Your task to perform on an android device: When is my next meeting? Image 0: 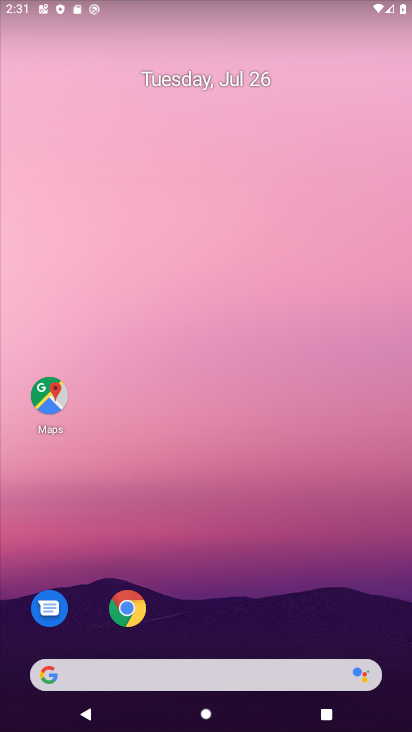
Step 0: drag from (262, 647) to (236, 182)
Your task to perform on an android device: When is my next meeting? Image 1: 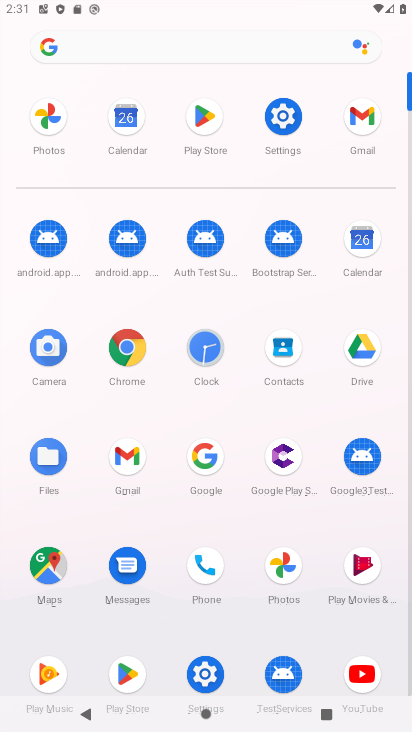
Step 1: click (280, 122)
Your task to perform on an android device: When is my next meeting? Image 2: 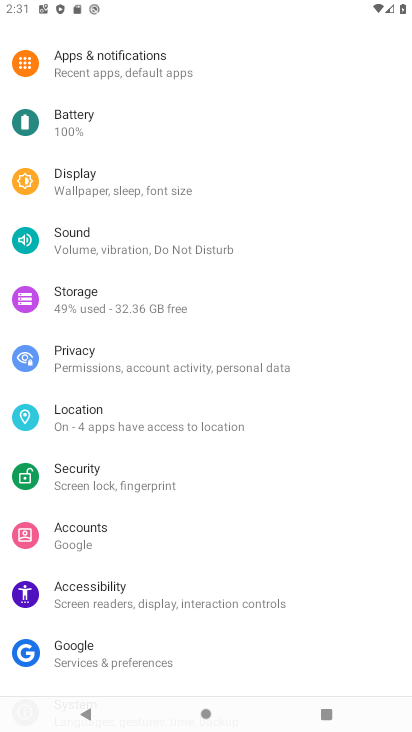
Step 2: press home button
Your task to perform on an android device: When is my next meeting? Image 3: 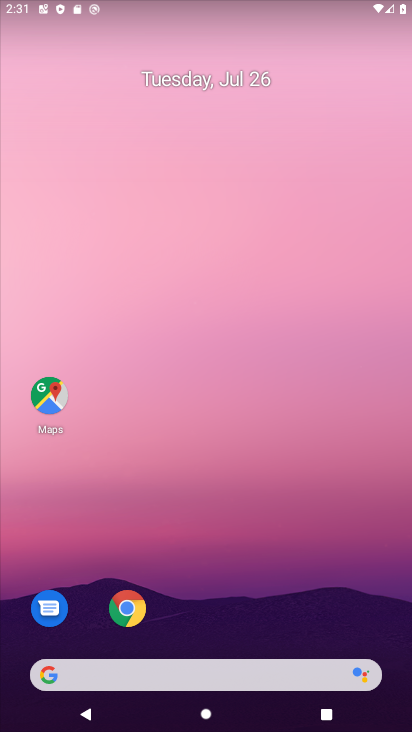
Step 3: drag from (251, 619) to (261, 7)
Your task to perform on an android device: When is my next meeting? Image 4: 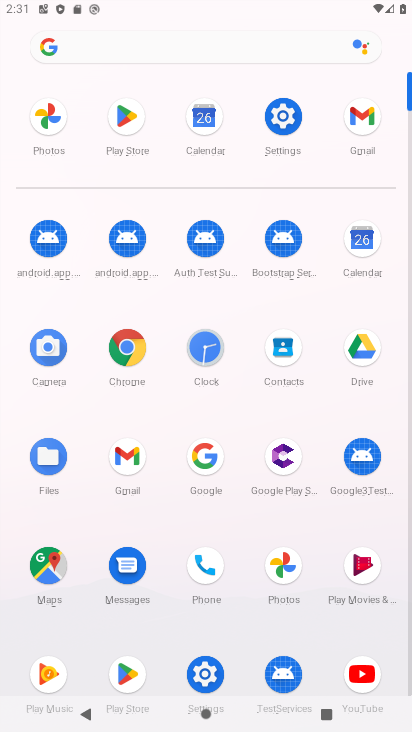
Step 4: click (360, 242)
Your task to perform on an android device: When is my next meeting? Image 5: 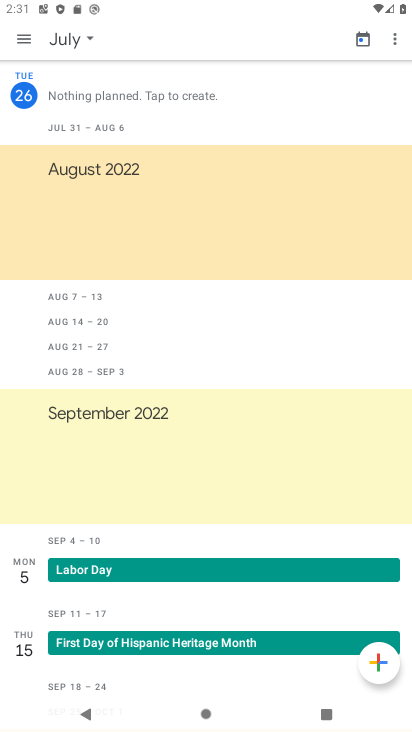
Step 5: task complete